Your task to perform on an android device: Search for Mexican restaurants on Maps Image 0: 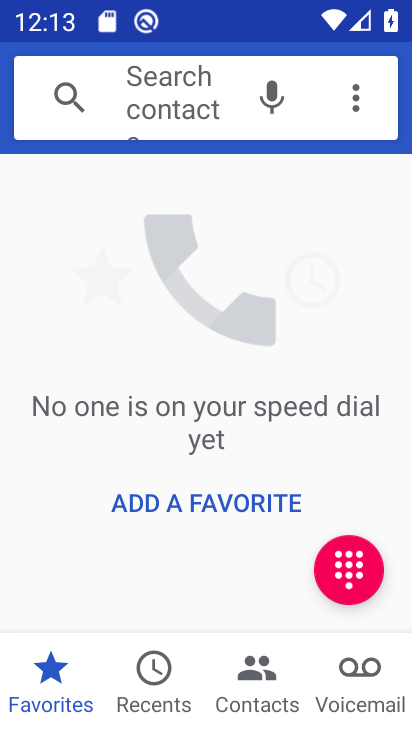
Step 0: press back button
Your task to perform on an android device: Search for Mexican restaurants on Maps Image 1: 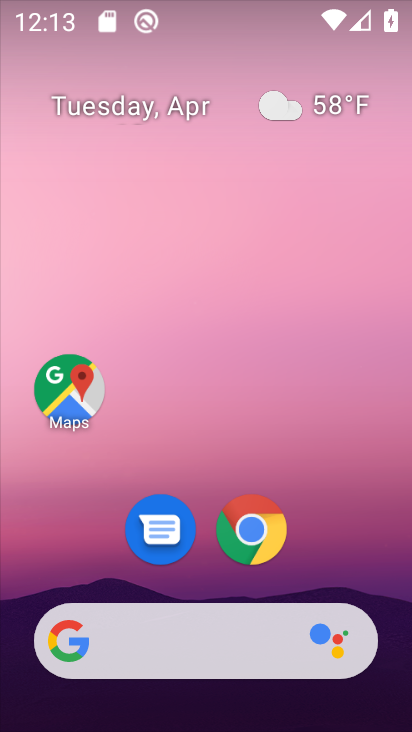
Step 1: click (71, 378)
Your task to perform on an android device: Search for Mexican restaurants on Maps Image 2: 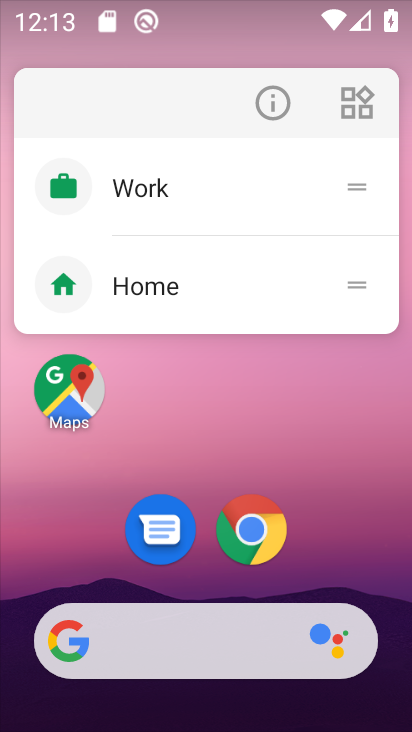
Step 2: click (77, 396)
Your task to perform on an android device: Search for Mexican restaurants on Maps Image 3: 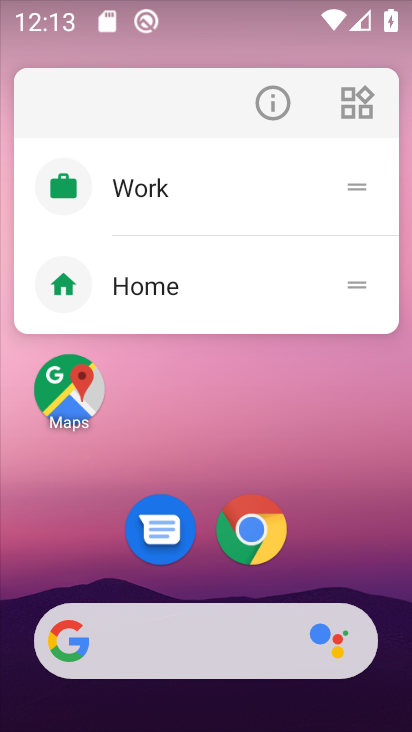
Step 3: click (71, 415)
Your task to perform on an android device: Search for Mexican restaurants on Maps Image 4: 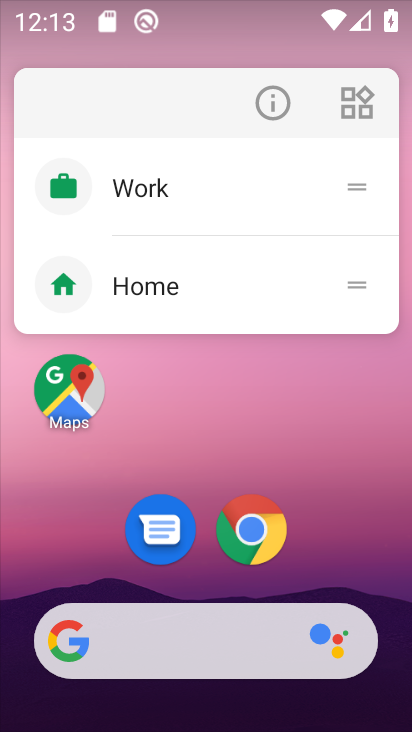
Step 4: drag from (352, 573) to (411, 341)
Your task to perform on an android device: Search for Mexican restaurants on Maps Image 5: 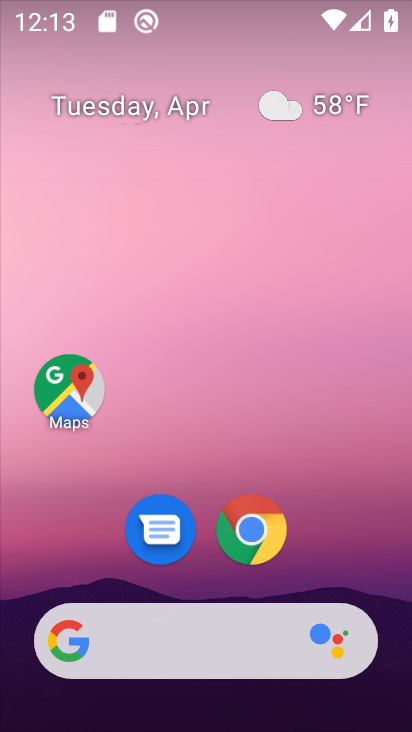
Step 5: drag from (336, 572) to (394, 63)
Your task to perform on an android device: Search for Mexican restaurants on Maps Image 6: 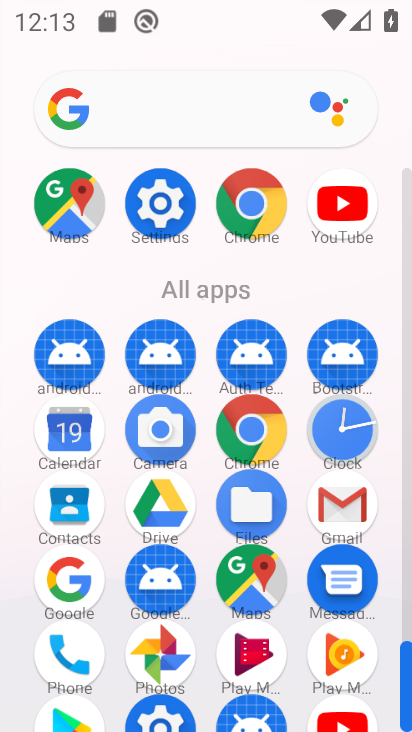
Step 6: click (257, 578)
Your task to perform on an android device: Search for Mexican restaurants on Maps Image 7: 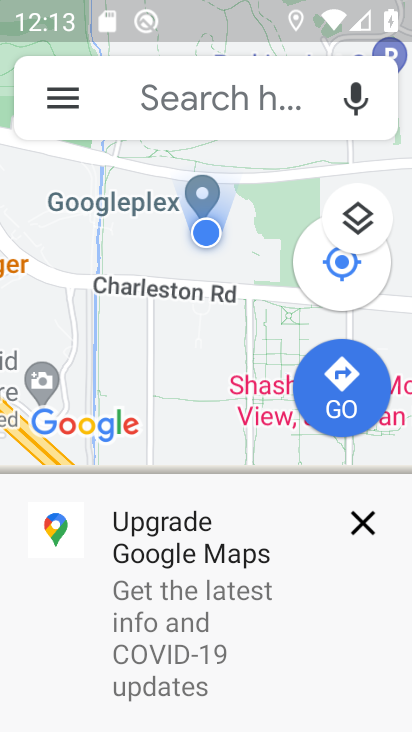
Step 7: click (350, 520)
Your task to perform on an android device: Search for Mexican restaurants on Maps Image 8: 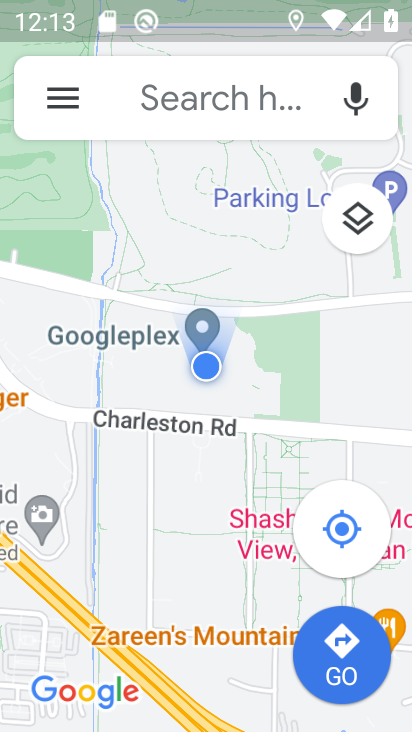
Step 8: click (173, 88)
Your task to perform on an android device: Search for Mexican restaurants on Maps Image 9: 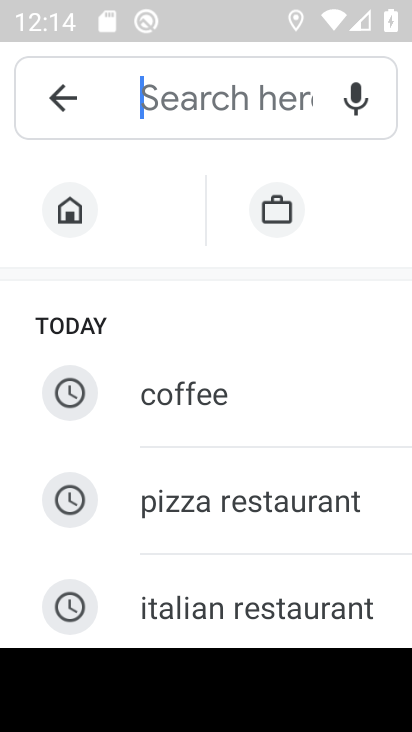
Step 9: type "Mexican restaurants "
Your task to perform on an android device: Search for Mexican restaurants on Maps Image 10: 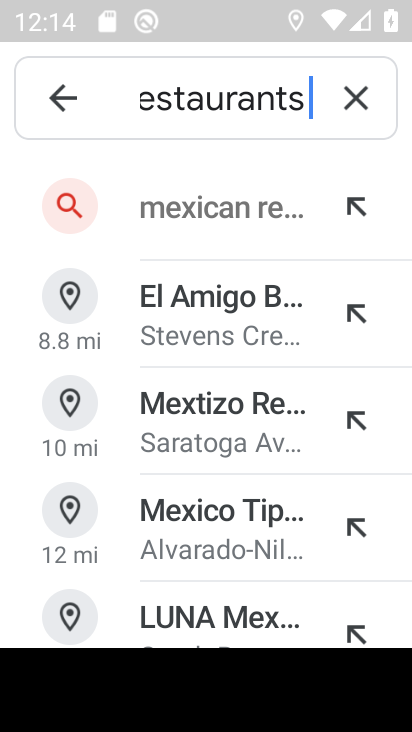
Step 10: click (209, 199)
Your task to perform on an android device: Search for Mexican restaurants on Maps Image 11: 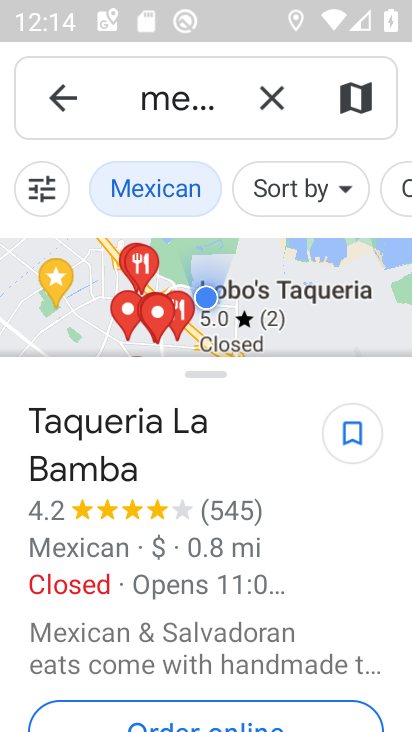
Step 11: task complete